Your task to perform on an android device: View the shopping cart on target.com. Search for corsair k70 on target.com, select the first entry, add it to the cart, then select checkout. Image 0: 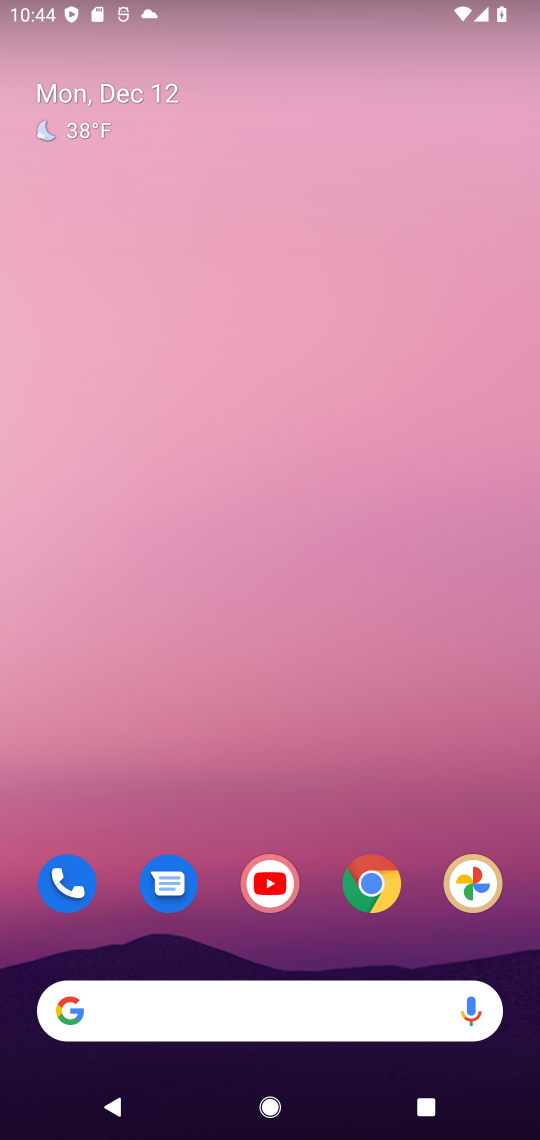
Step 0: drag from (256, 937) to (243, 381)
Your task to perform on an android device: View the shopping cart on target.com. Search for corsair k70 on target.com, select the first entry, add it to the cart, then select checkout. Image 1: 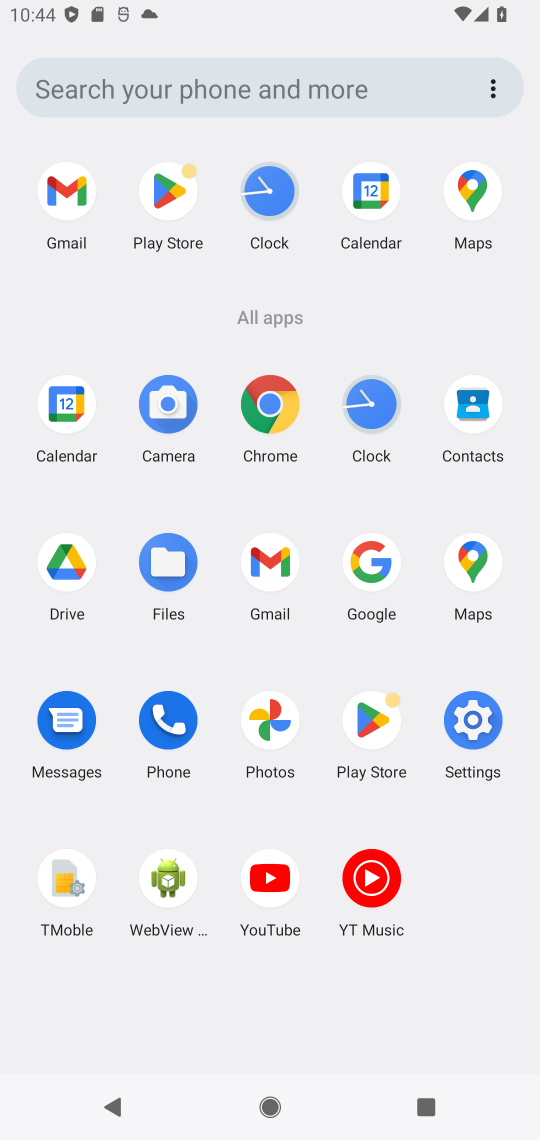
Step 1: click (384, 565)
Your task to perform on an android device: View the shopping cart on target.com. Search for corsair k70 on target.com, select the first entry, add it to the cart, then select checkout. Image 2: 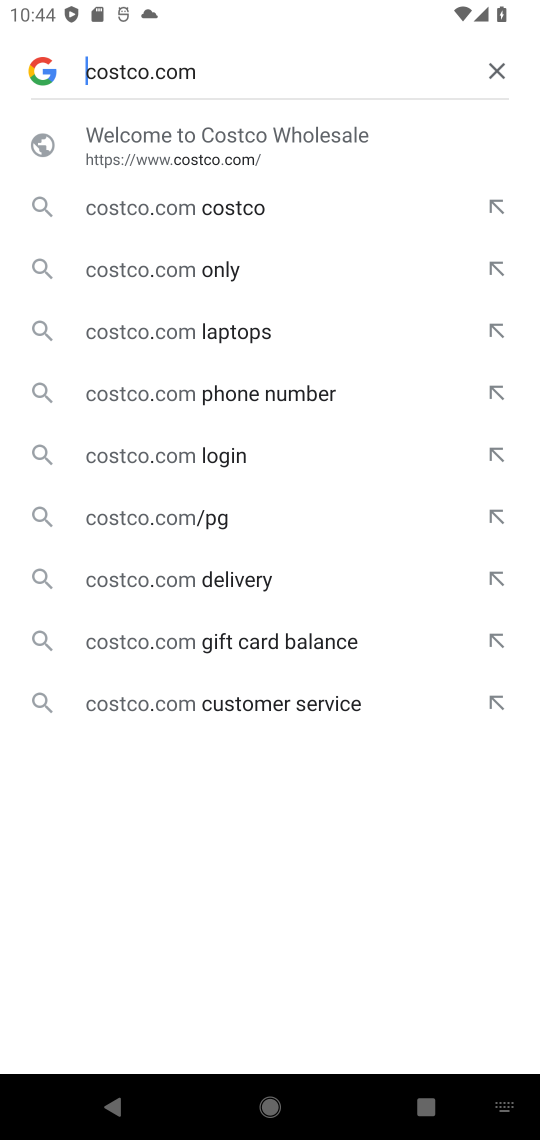
Step 2: click (495, 71)
Your task to perform on an android device: View the shopping cart on target.com. Search for corsair k70 on target.com, select the first entry, add it to the cart, then select checkout. Image 3: 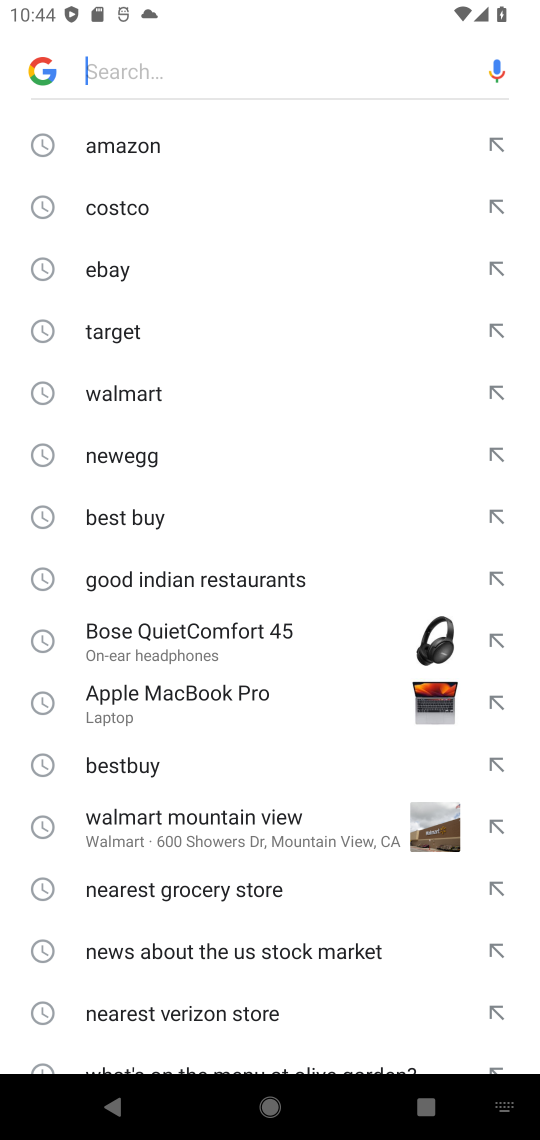
Step 3: click (122, 330)
Your task to perform on an android device: View the shopping cart on target.com. Search for corsair k70 on target.com, select the first entry, add it to the cart, then select checkout. Image 4: 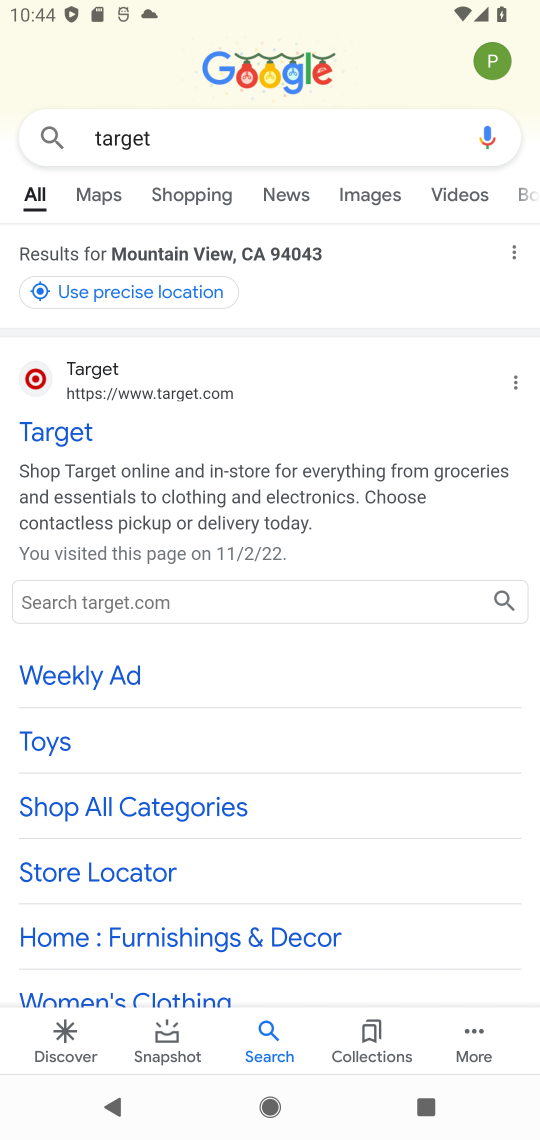
Step 4: click (49, 429)
Your task to perform on an android device: View the shopping cart on target.com. Search for corsair k70 on target.com, select the first entry, add it to the cart, then select checkout. Image 5: 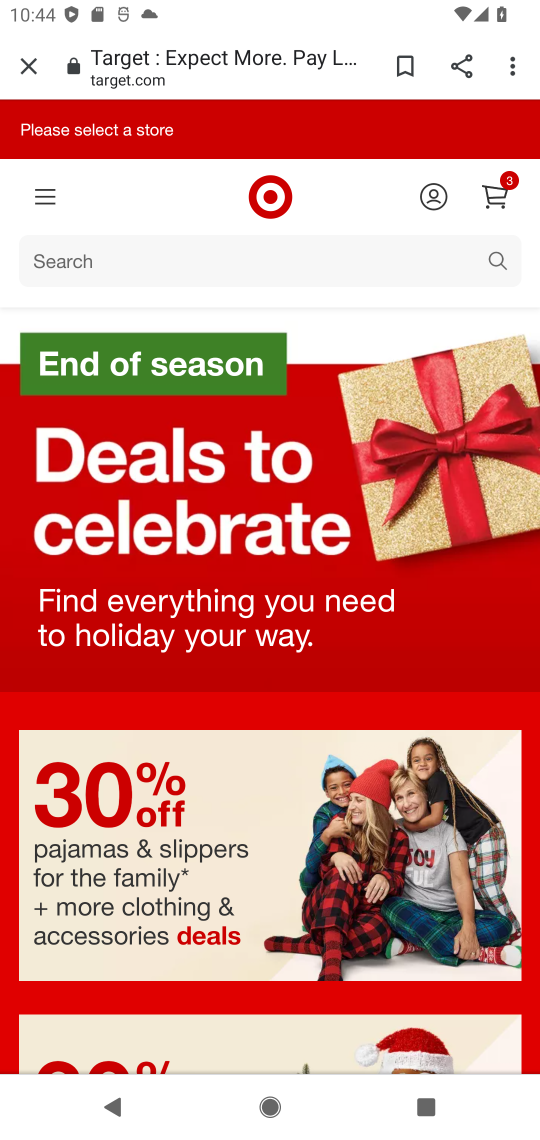
Step 5: click (207, 253)
Your task to perform on an android device: View the shopping cart on target.com. Search for corsair k70 on target.com, select the first entry, add it to the cart, then select checkout. Image 6: 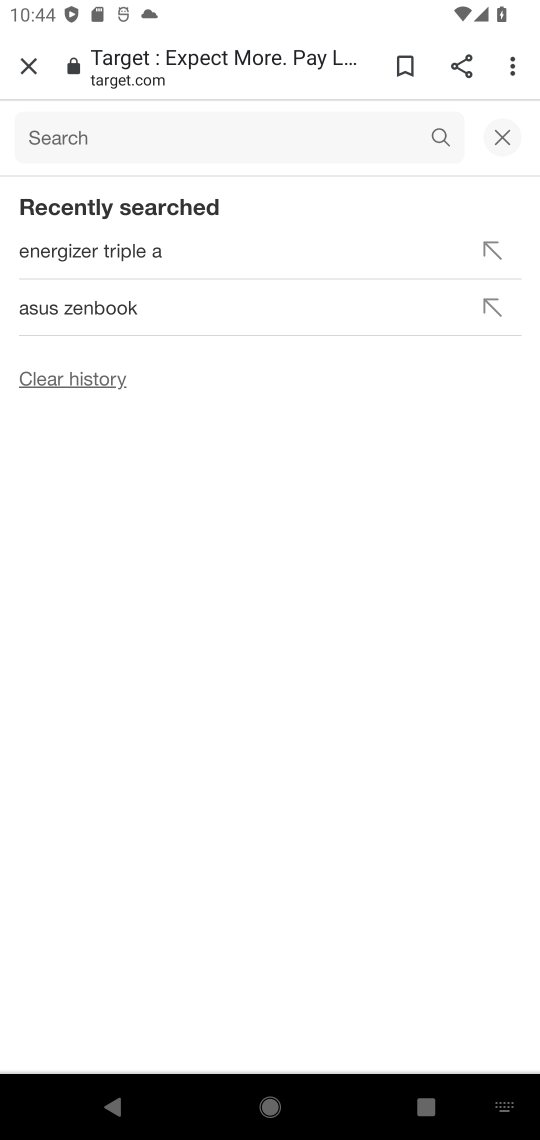
Step 6: click (502, 137)
Your task to perform on an android device: View the shopping cart on target.com. Search for corsair k70 on target.com, select the first entry, add it to the cart, then select checkout. Image 7: 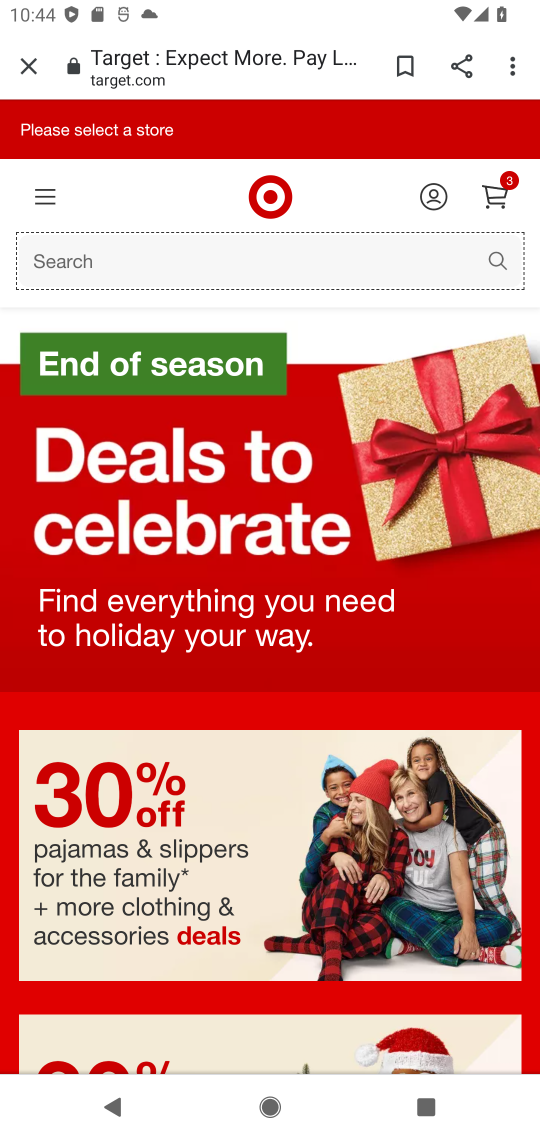
Step 7: click (502, 203)
Your task to perform on an android device: View the shopping cart on target.com. Search for corsair k70 on target.com, select the first entry, add it to the cart, then select checkout. Image 8: 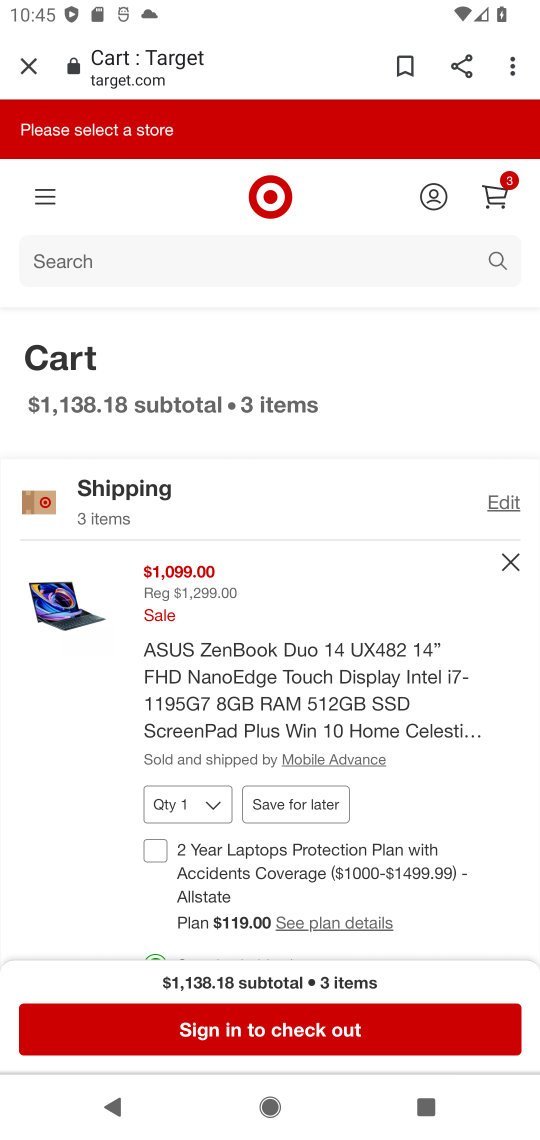
Step 8: click (218, 262)
Your task to perform on an android device: View the shopping cart on target.com. Search for corsair k70 on target.com, select the first entry, add it to the cart, then select checkout. Image 9: 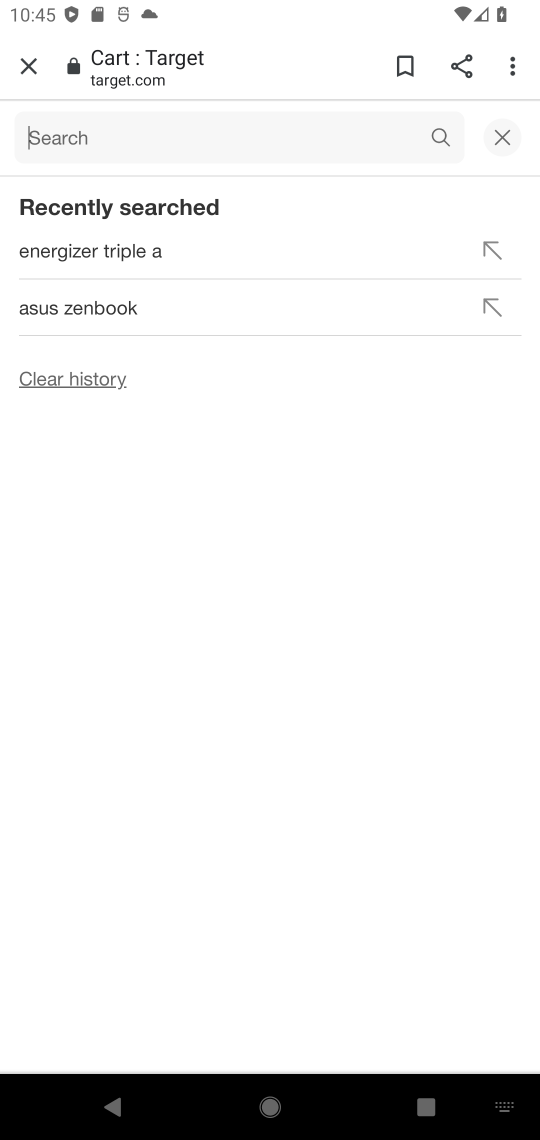
Step 9: type " corsair k70 "
Your task to perform on an android device: View the shopping cart on target.com. Search for corsair k70 on target.com, select the first entry, add it to the cart, then select checkout. Image 10: 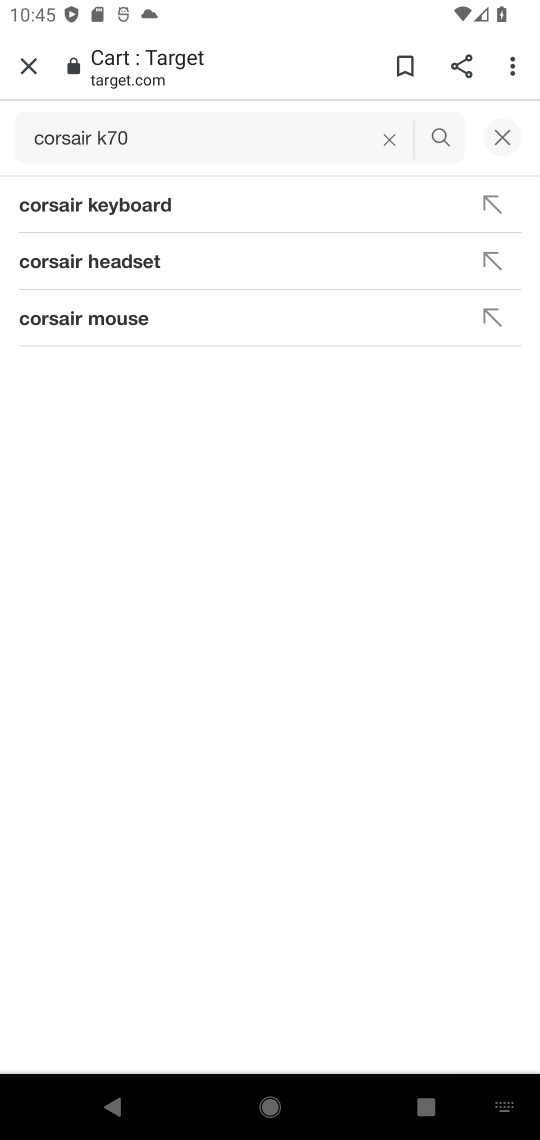
Step 10: click (432, 131)
Your task to perform on an android device: View the shopping cart on target.com. Search for corsair k70 on target.com, select the first entry, add it to the cart, then select checkout. Image 11: 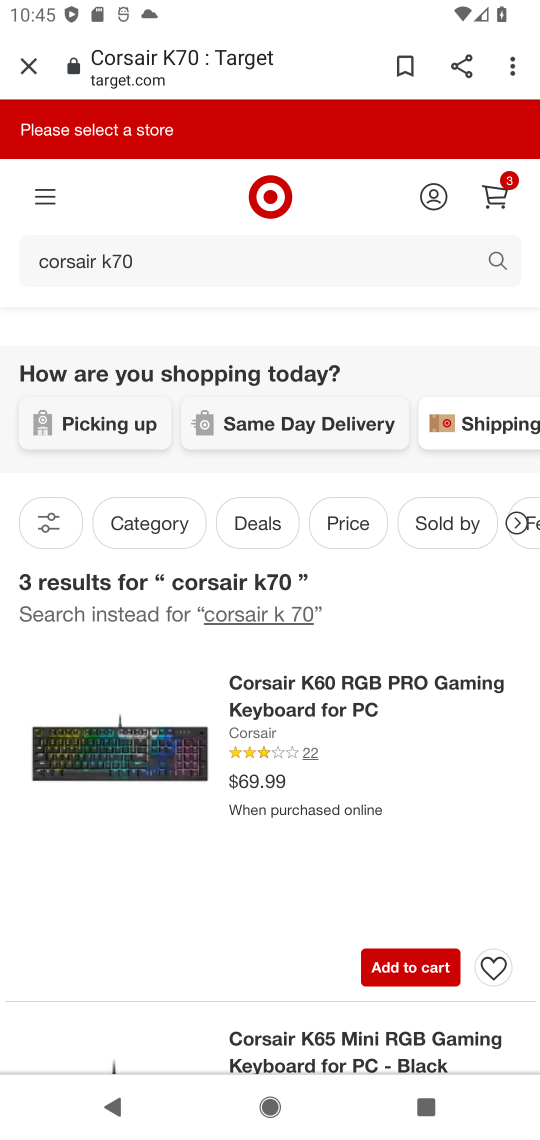
Step 11: drag from (404, 812) to (397, 595)
Your task to perform on an android device: View the shopping cart on target.com. Search for corsair k70 on target.com, select the first entry, add it to the cart, then select checkout. Image 12: 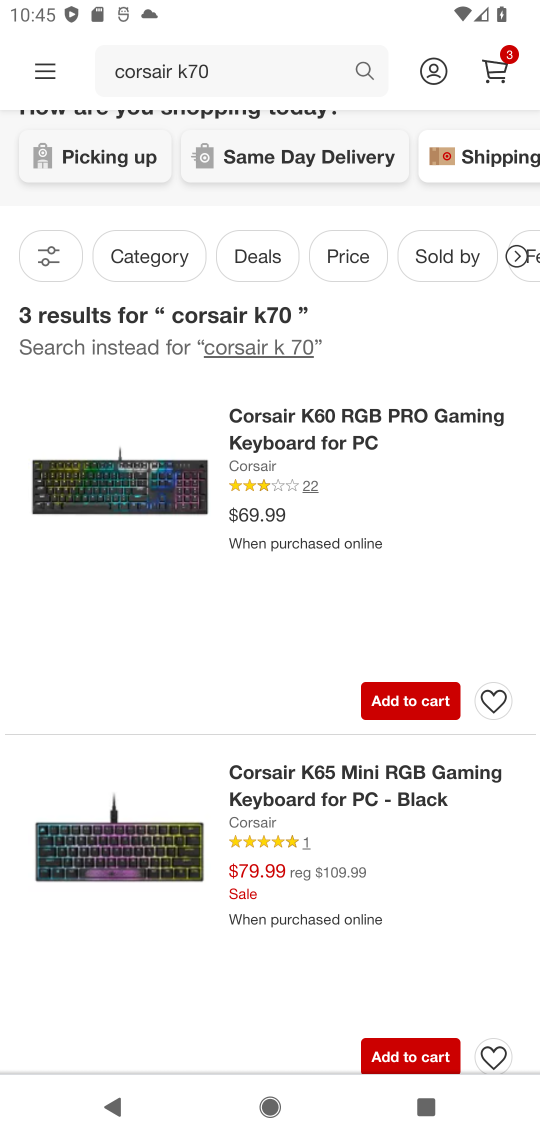
Step 12: click (394, 696)
Your task to perform on an android device: View the shopping cart on target.com. Search for corsair k70 on target.com, select the first entry, add it to the cart, then select checkout. Image 13: 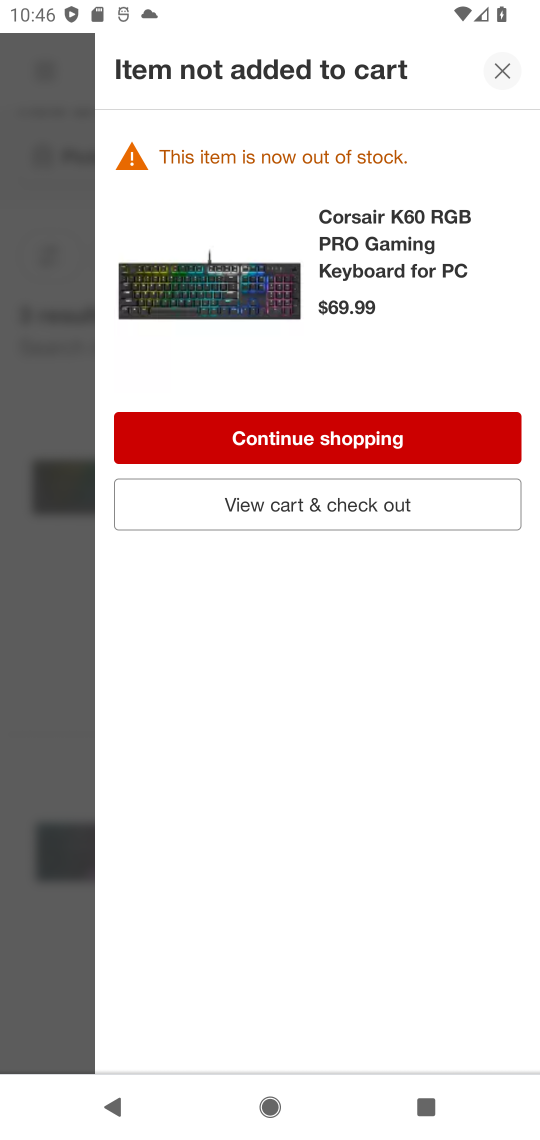
Step 13: click (328, 501)
Your task to perform on an android device: View the shopping cart on target.com. Search for corsair k70 on target.com, select the first entry, add it to the cart, then select checkout. Image 14: 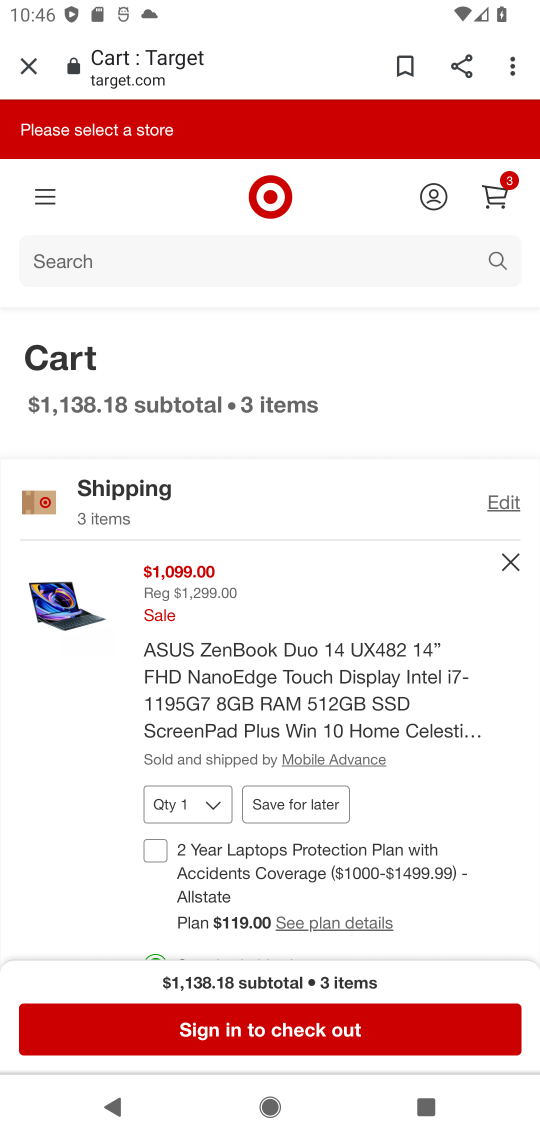
Step 14: click (303, 1036)
Your task to perform on an android device: View the shopping cart on target.com. Search for corsair k70 on target.com, select the first entry, add it to the cart, then select checkout. Image 15: 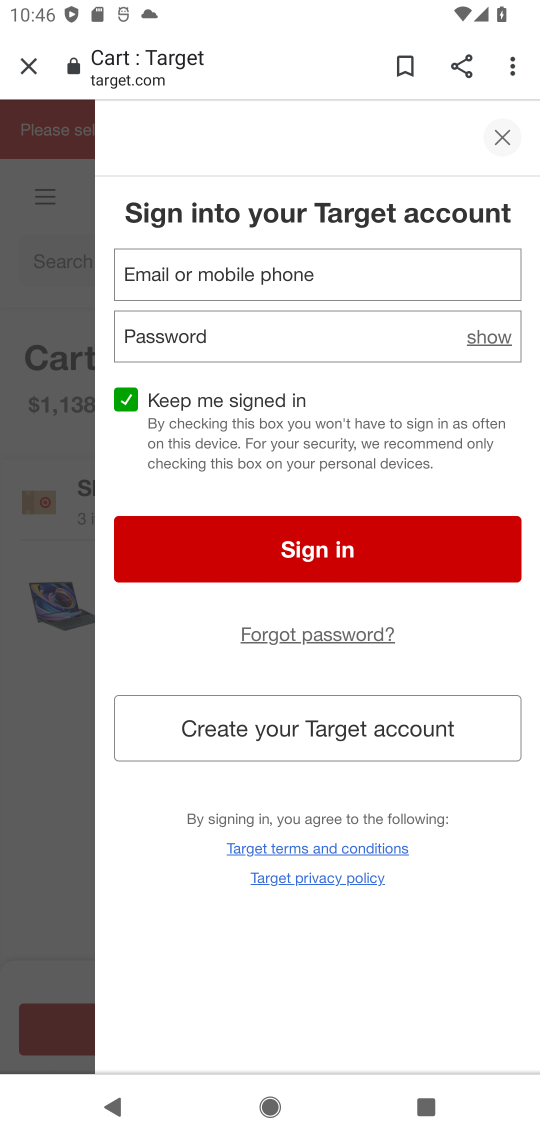
Step 15: task complete